Your task to perform on an android device: Go to settings Image 0: 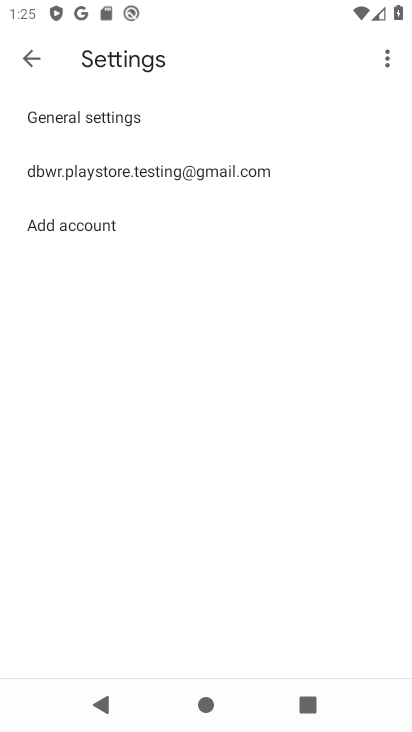
Step 0: press home button
Your task to perform on an android device: Go to settings Image 1: 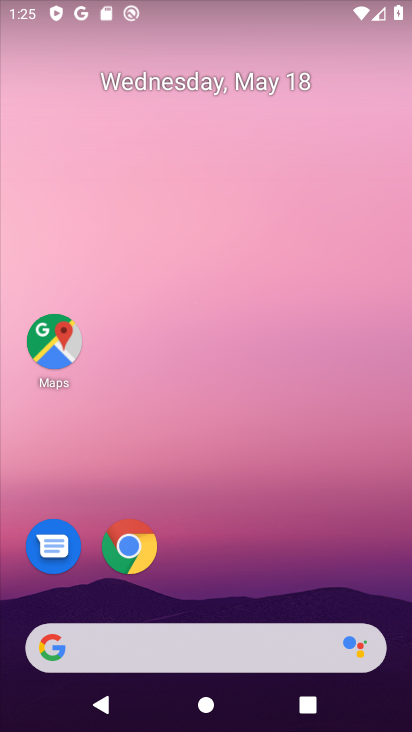
Step 1: drag from (280, 592) to (356, 0)
Your task to perform on an android device: Go to settings Image 2: 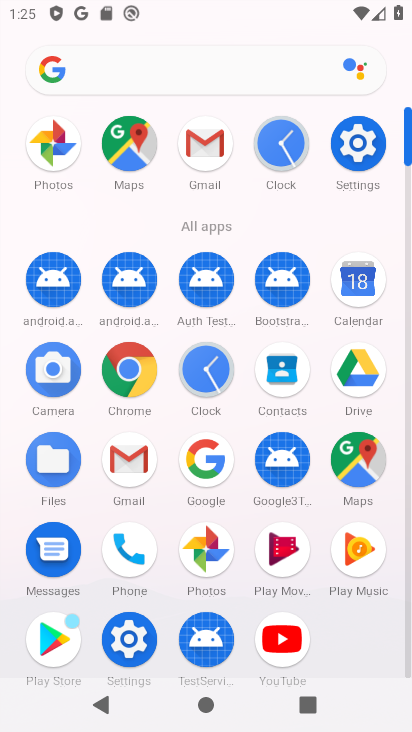
Step 2: click (366, 176)
Your task to perform on an android device: Go to settings Image 3: 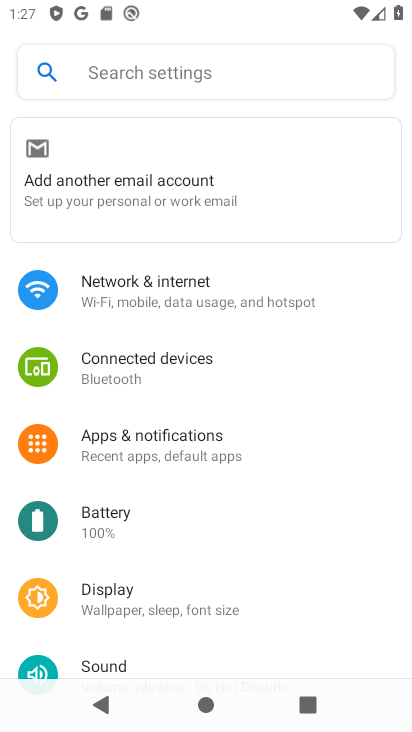
Step 3: task complete